Your task to perform on an android device: turn on showing notifications on the lock screen Image 0: 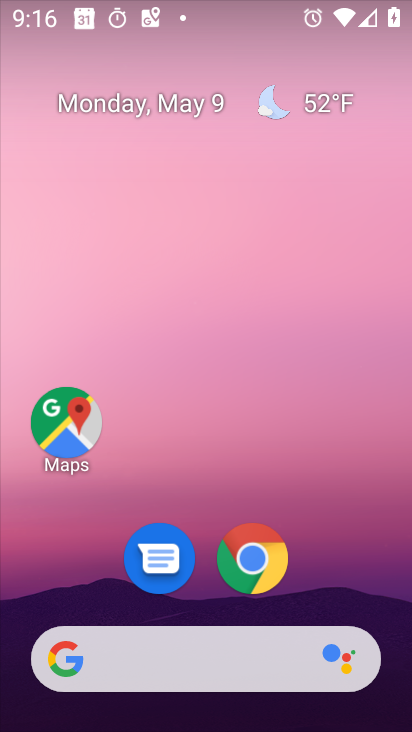
Step 0: drag from (218, 610) to (348, 79)
Your task to perform on an android device: turn on showing notifications on the lock screen Image 1: 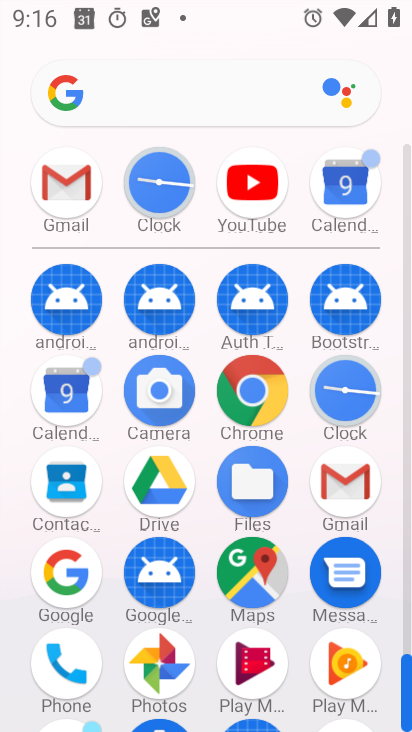
Step 1: drag from (187, 637) to (267, 129)
Your task to perform on an android device: turn on showing notifications on the lock screen Image 2: 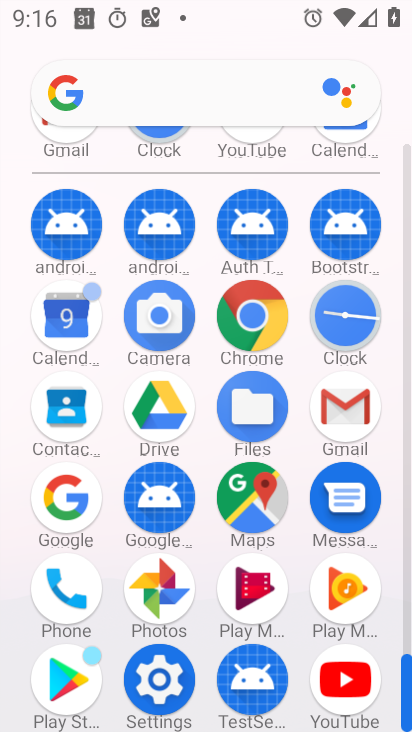
Step 2: click (165, 677)
Your task to perform on an android device: turn on showing notifications on the lock screen Image 3: 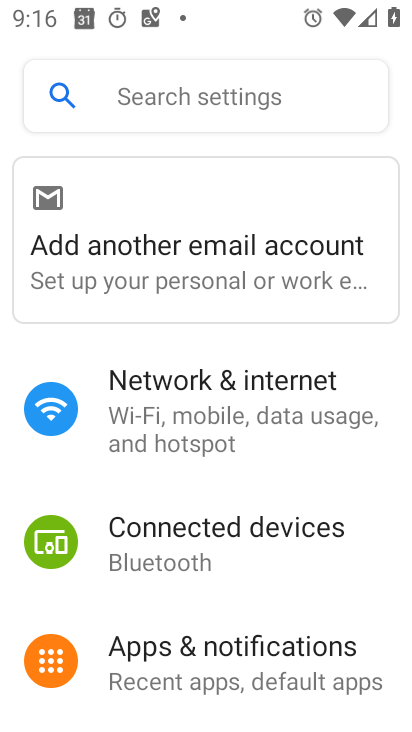
Step 3: click (224, 657)
Your task to perform on an android device: turn on showing notifications on the lock screen Image 4: 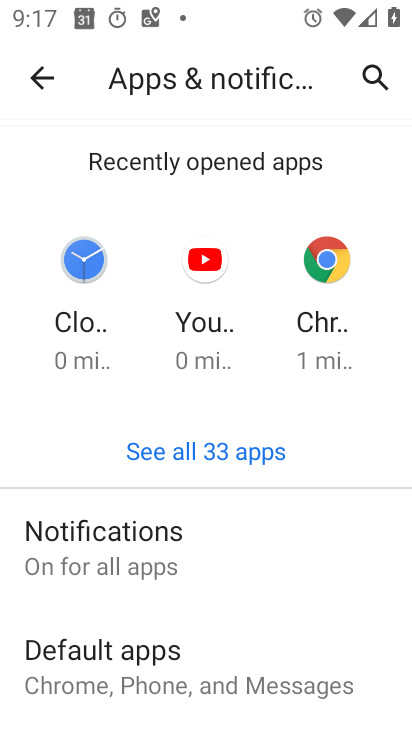
Step 4: drag from (163, 672) to (268, 299)
Your task to perform on an android device: turn on showing notifications on the lock screen Image 5: 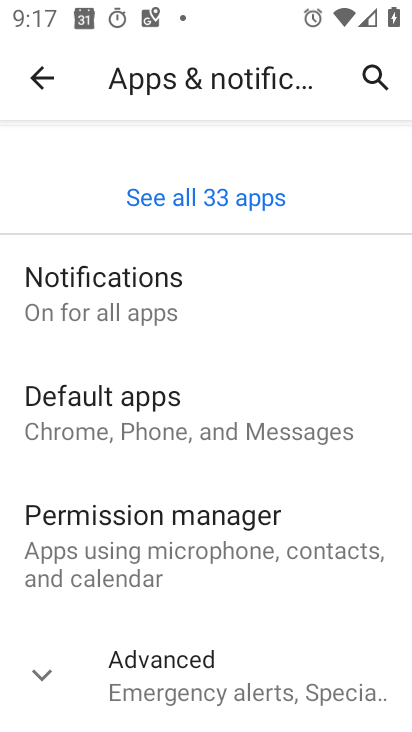
Step 5: click (176, 273)
Your task to perform on an android device: turn on showing notifications on the lock screen Image 6: 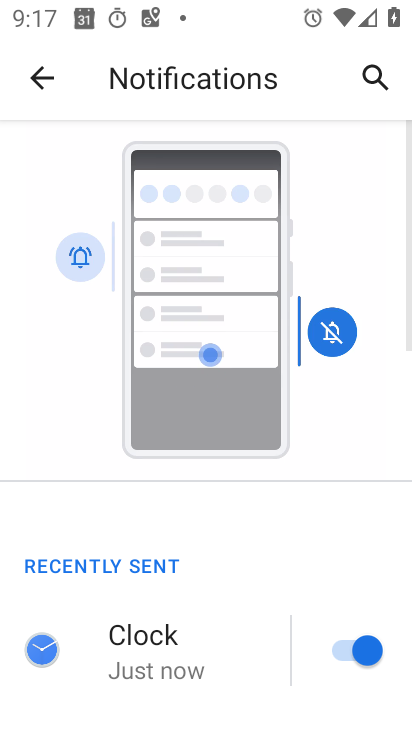
Step 6: drag from (194, 674) to (316, 147)
Your task to perform on an android device: turn on showing notifications on the lock screen Image 7: 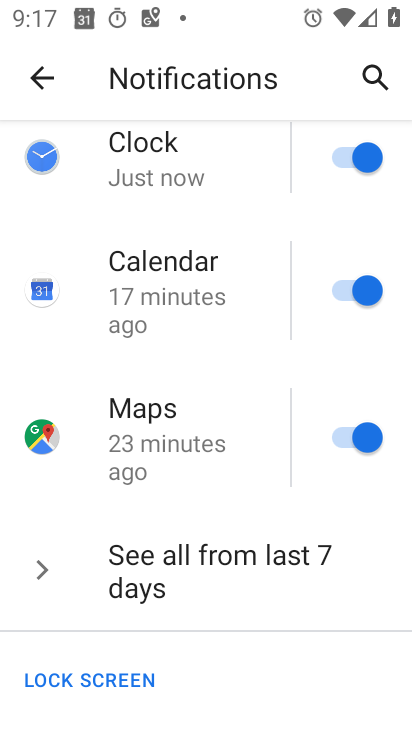
Step 7: drag from (215, 661) to (275, 363)
Your task to perform on an android device: turn on showing notifications on the lock screen Image 8: 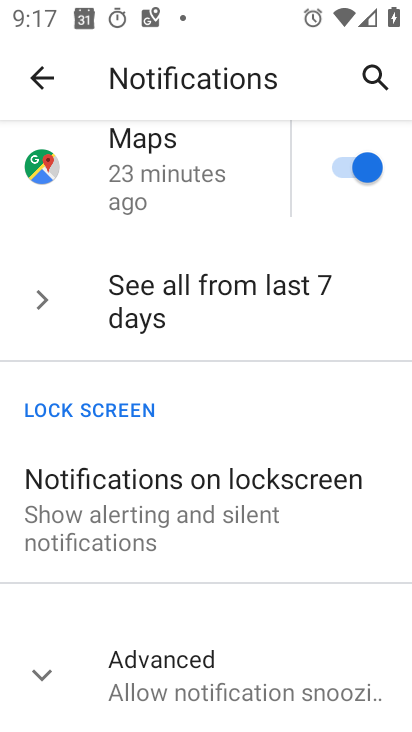
Step 8: click (213, 512)
Your task to perform on an android device: turn on showing notifications on the lock screen Image 9: 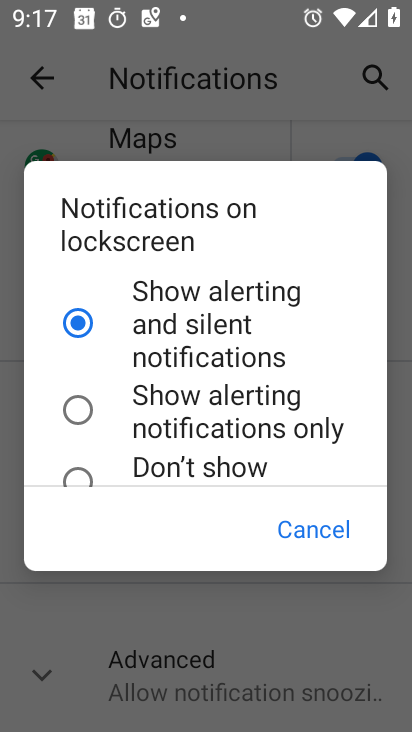
Step 9: click (74, 324)
Your task to perform on an android device: turn on showing notifications on the lock screen Image 10: 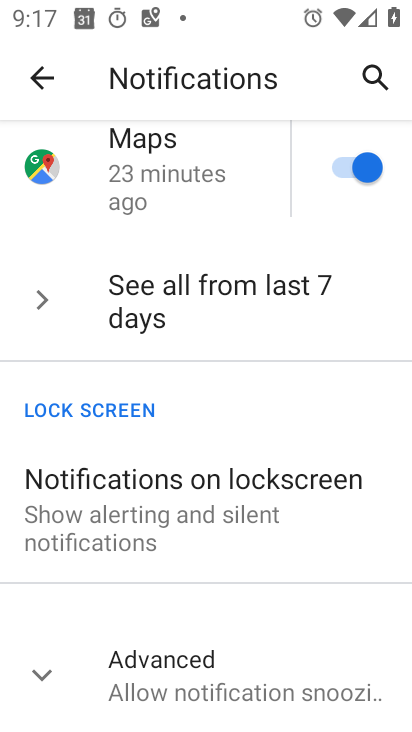
Step 10: task complete